Your task to perform on an android device: Set the phone to "Do not disturb". Image 0: 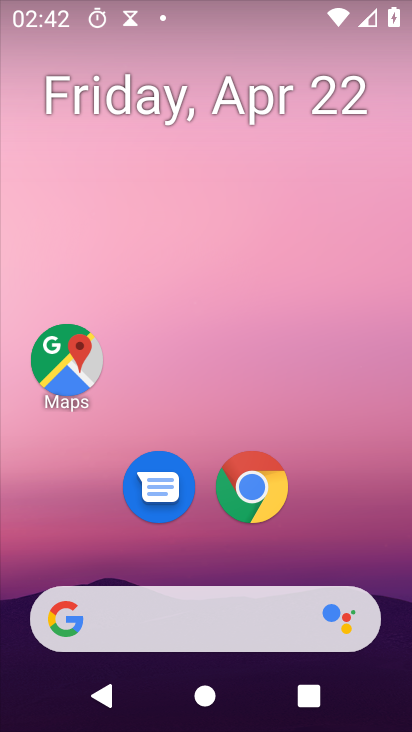
Step 0: drag from (167, 570) to (254, 108)
Your task to perform on an android device: Set the phone to "Do not disturb". Image 1: 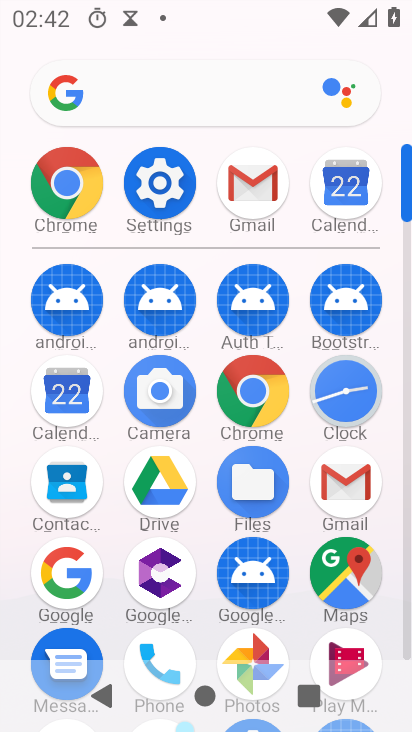
Step 1: click (161, 182)
Your task to perform on an android device: Set the phone to "Do not disturb". Image 2: 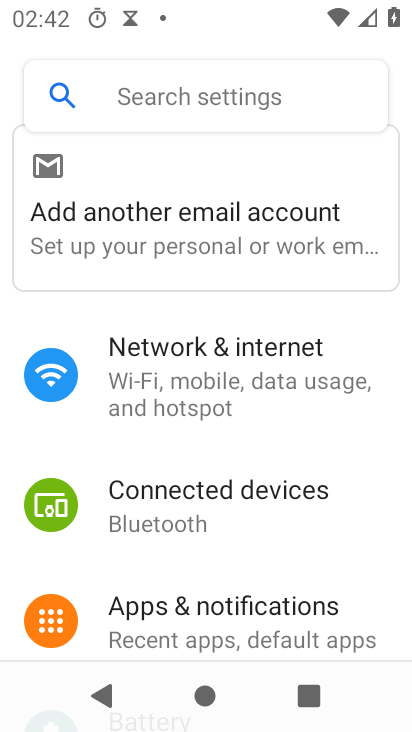
Step 2: drag from (210, 590) to (320, 260)
Your task to perform on an android device: Set the phone to "Do not disturb". Image 3: 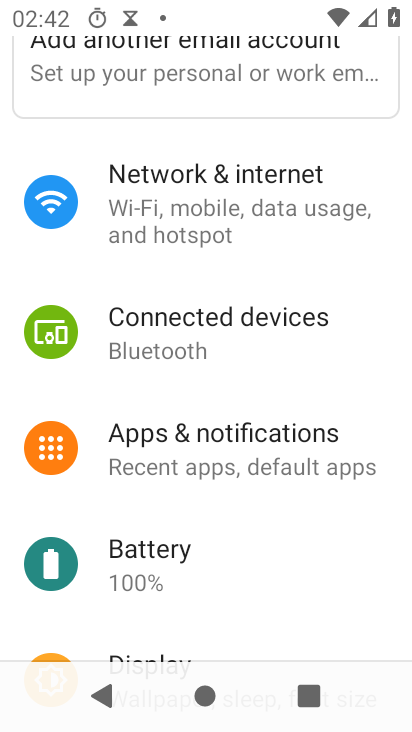
Step 3: drag from (206, 555) to (300, 141)
Your task to perform on an android device: Set the phone to "Do not disturb". Image 4: 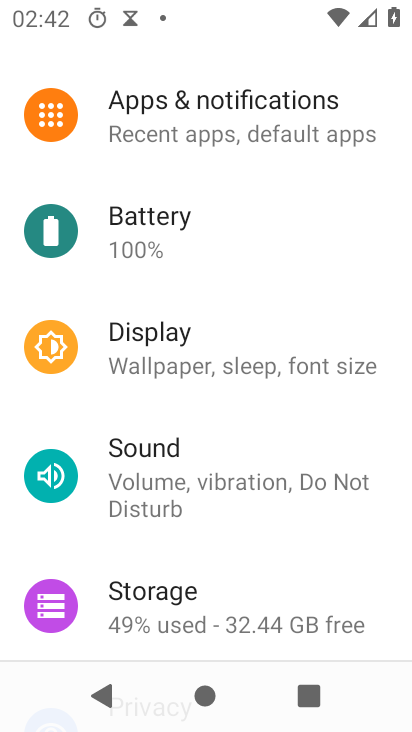
Step 4: click (170, 460)
Your task to perform on an android device: Set the phone to "Do not disturb". Image 5: 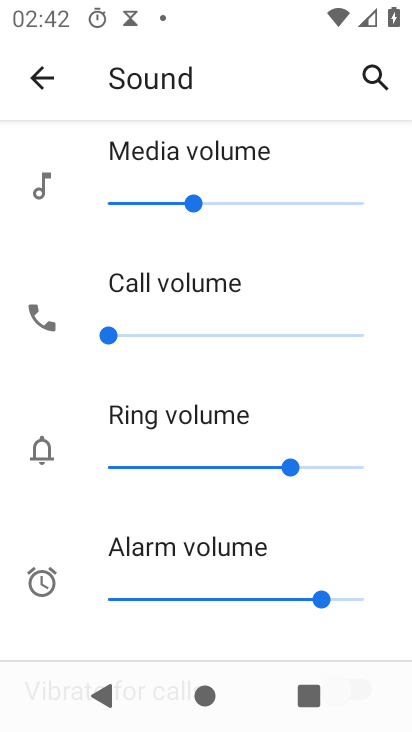
Step 5: task complete